Your task to perform on an android device: turn off translation in the chrome app Image 0: 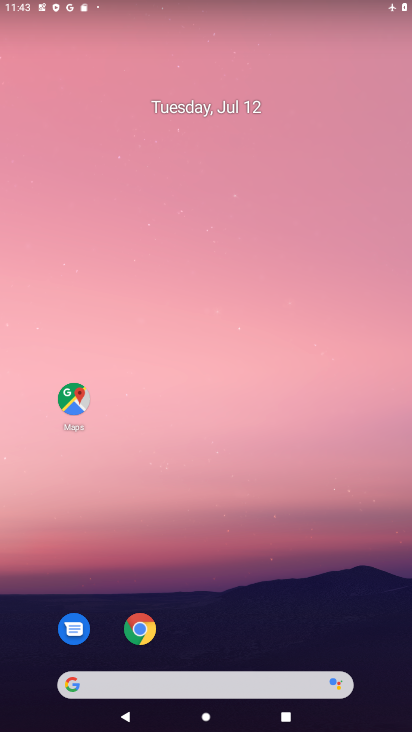
Step 0: drag from (211, 605) to (225, 178)
Your task to perform on an android device: turn off translation in the chrome app Image 1: 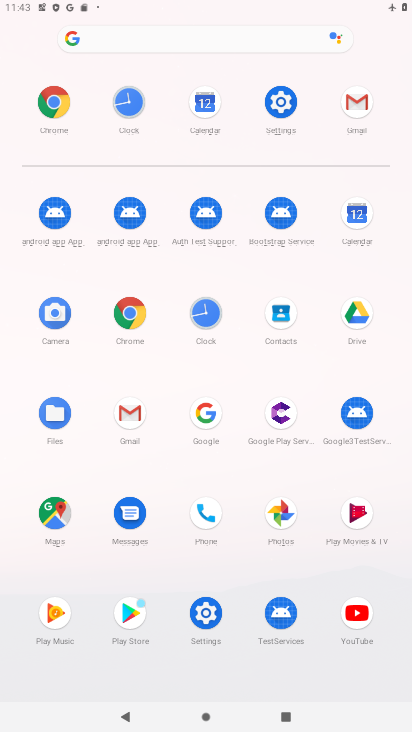
Step 1: click (57, 96)
Your task to perform on an android device: turn off translation in the chrome app Image 2: 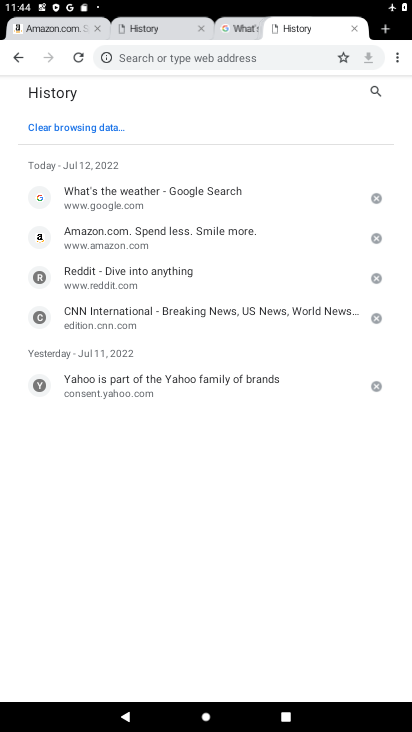
Step 2: click (396, 53)
Your task to perform on an android device: turn off translation in the chrome app Image 3: 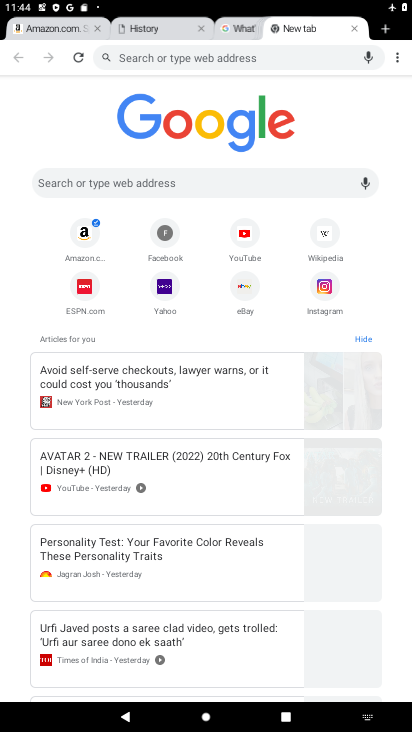
Step 3: click (400, 62)
Your task to perform on an android device: turn off translation in the chrome app Image 4: 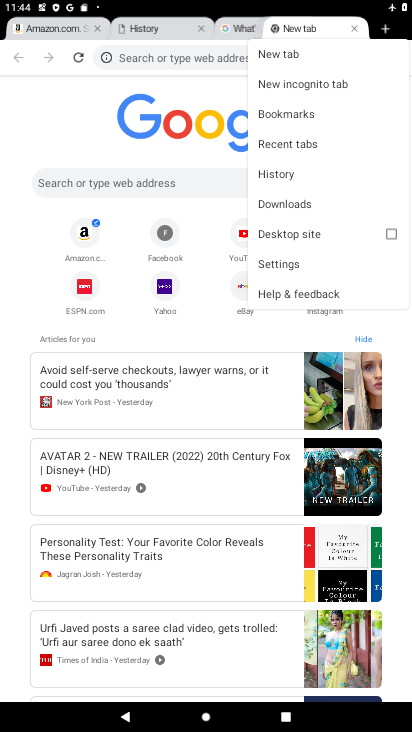
Step 4: click (287, 263)
Your task to perform on an android device: turn off translation in the chrome app Image 5: 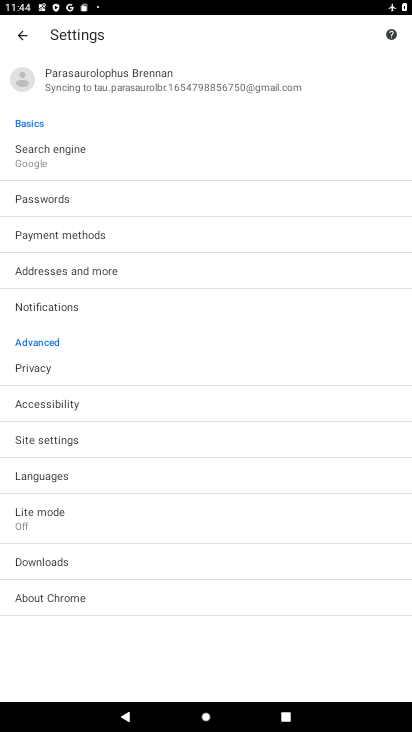
Step 5: click (71, 469)
Your task to perform on an android device: turn off translation in the chrome app Image 6: 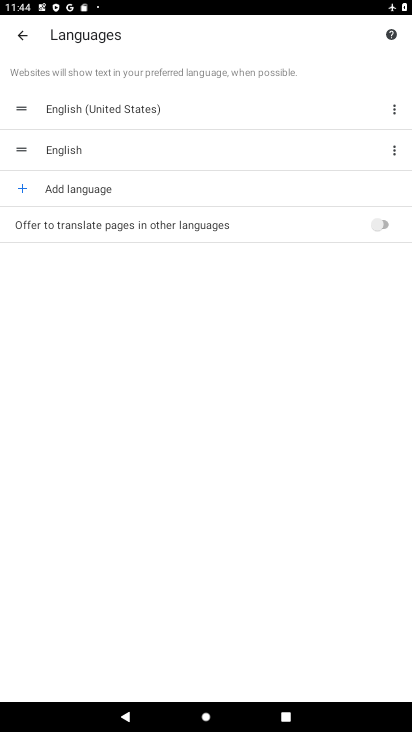
Step 6: task complete